Your task to perform on an android device: see sites visited before in the chrome app Image 0: 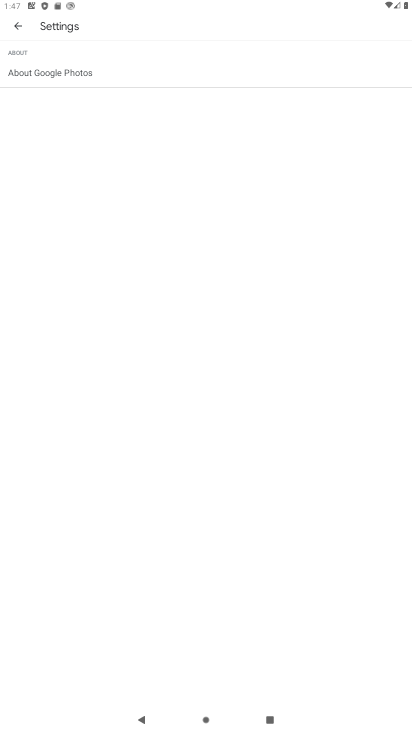
Step 0: press home button
Your task to perform on an android device: see sites visited before in the chrome app Image 1: 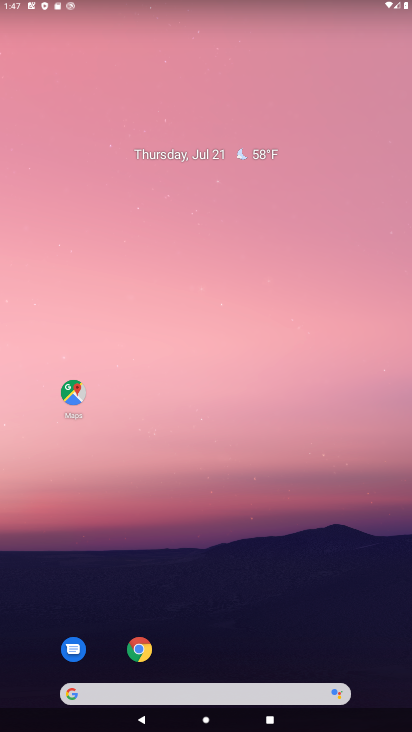
Step 1: click (134, 639)
Your task to perform on an android device: see sites visited before in the chrome app Image 2: 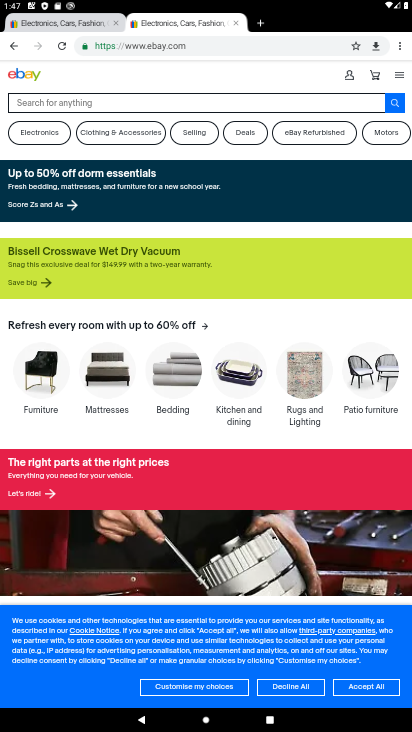
Step 2: click (398, 49)
Your task to perform on an android device: see sites visited before in the chrome app Image 3: 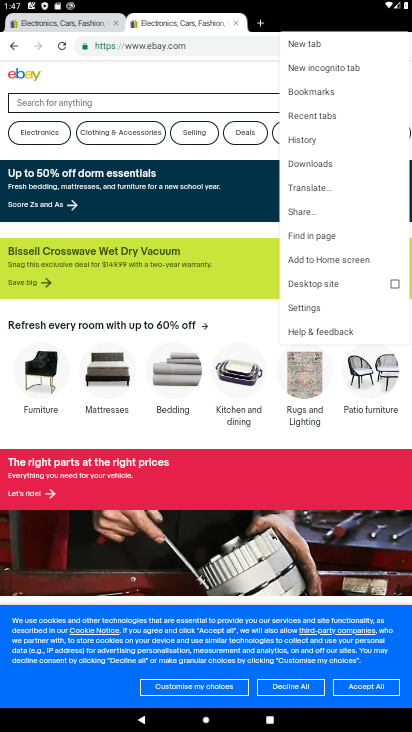
Step 3: click (319, 308)
Your task to perform on an android device: see sites visited before in the chrome app Image 4: 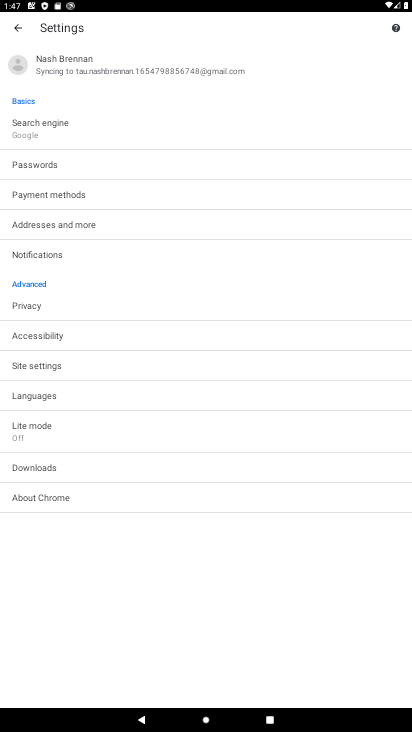
Step 4: task complete